Your task to perform on an android device: turn on priority inbox in the gmail app Image 0: 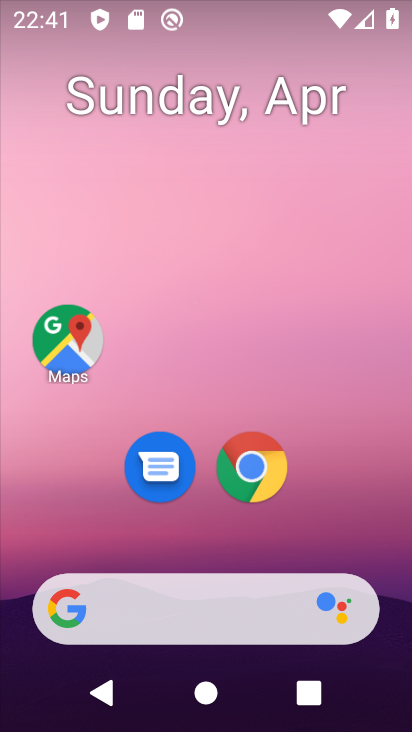
Step 0: drag from (201, 517) to (281, 143)
Your task to perform on an android device: turn on priority inbox in the gmail app Image 1: 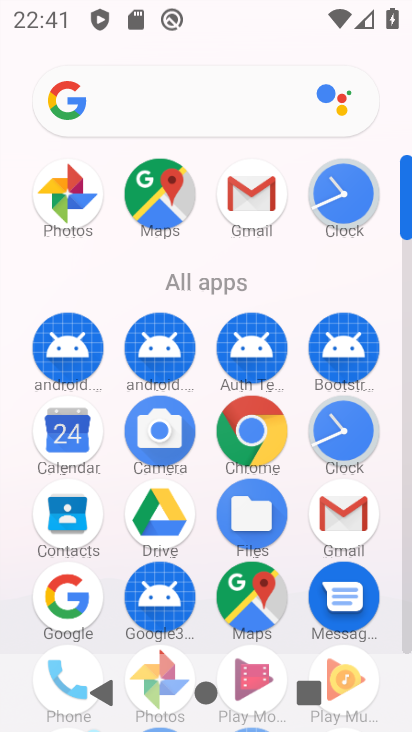
Step 1: click (249, 200)
Your task to perform on an android device: turn on priority inbox in the gmail app Image 2: 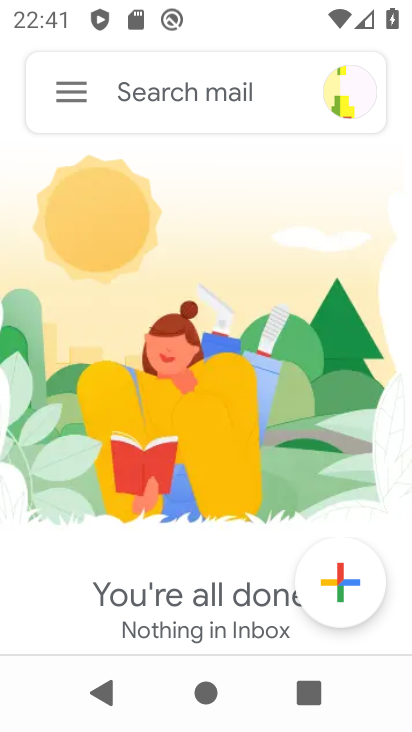
Step 2: click (65, 96)
Your task to perform on an android device: turn on priority inbox in the gmail app Image 3: 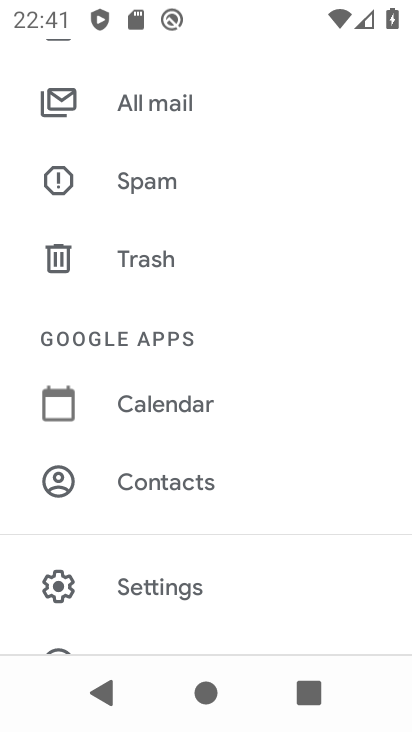
Step 3: click (180, 600)
Your task to perform on an android device: turn on priority inbox in the gmail app Image 4: 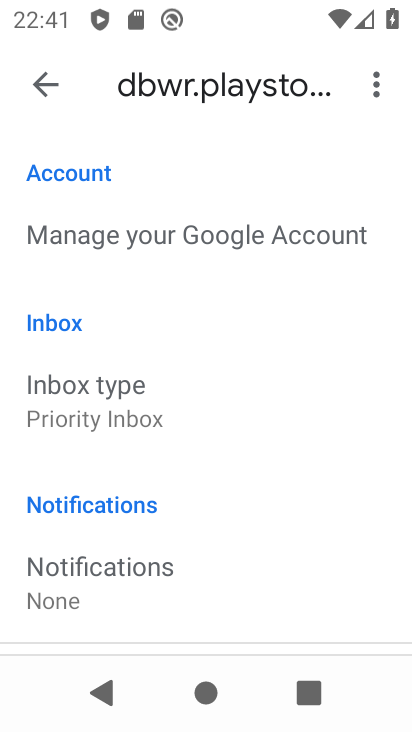
Step 4: click (100, 411)
Your task to perform on an android device: turn on priority inbox in the gmail app Image 5: 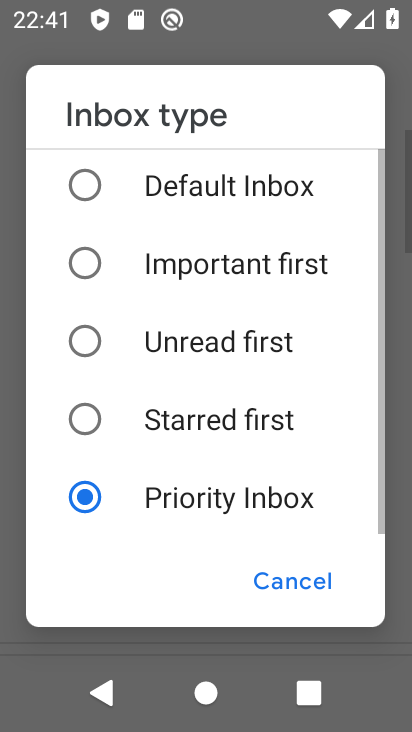
Step 5: task complete